Your task to perform on an android device: What is the news today? Image 0: 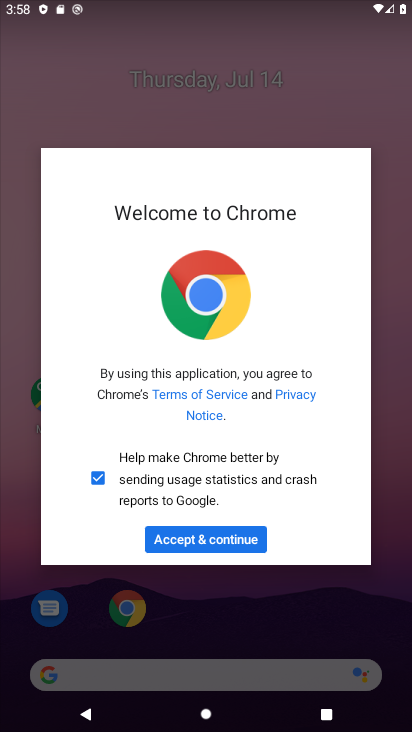
Step 0: press home button
Your task to perform on an android device: What is the news today? Image 1: 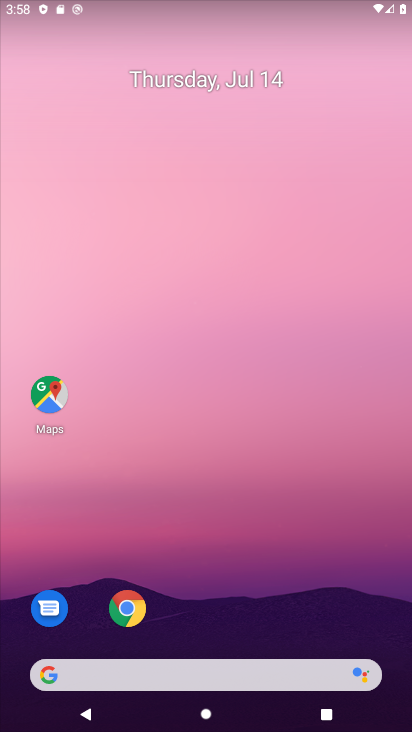
Step 1: drag from (220, 644) to (186, 127)
Your task to perform on an android device: What is the news today? Image 2: 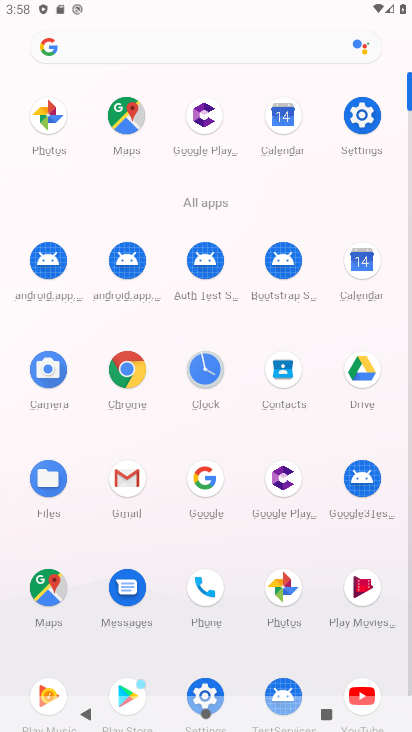
Step 2: click (191, 487)
Your task to perform on an android device: What is the news today? Image 3: 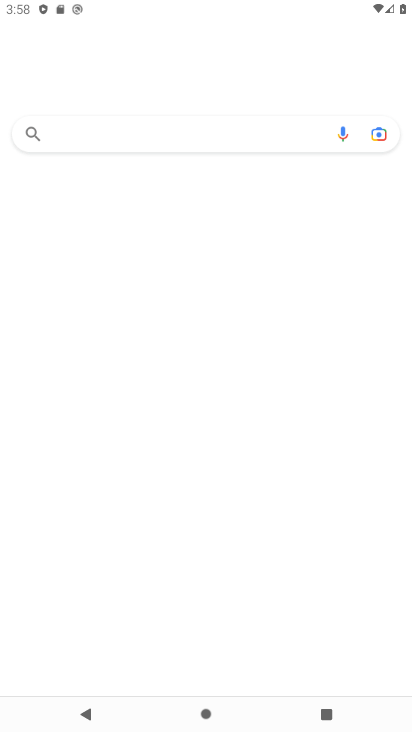
Step 3: click (169, 143)
Your task to perform on an android device: What is the news today? Image 4: 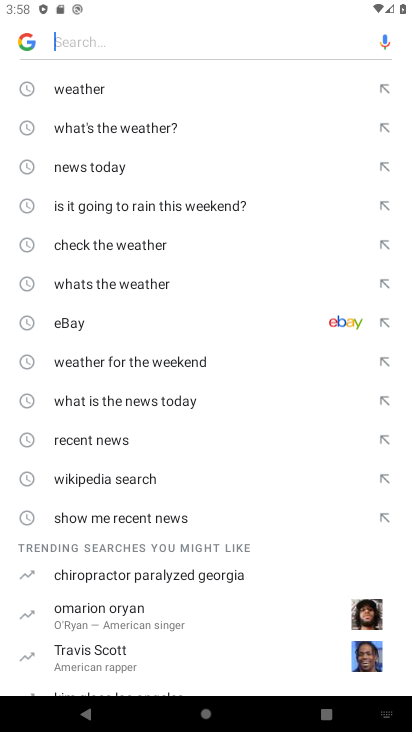
Step 4: click (131, 168)
Your task to perform on an android device: What is the news today? Image 5: 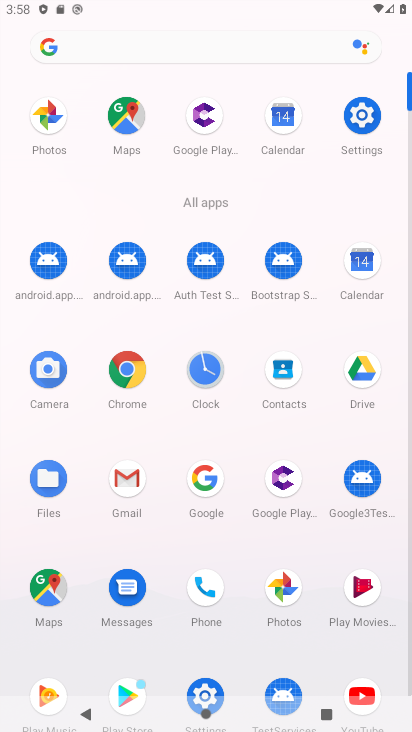
Step 5: click (205, 487)
Your task to perform on an android device: What is the news today? Image 6: 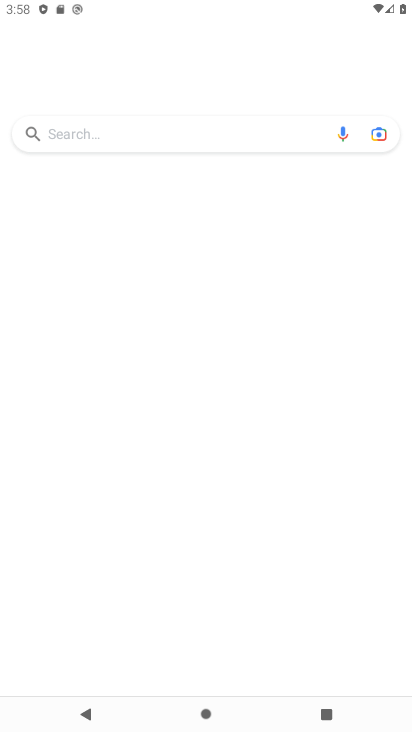
Step 6: click (114, 141)
Your task to perform on an android device: What is the news today? Image 7: 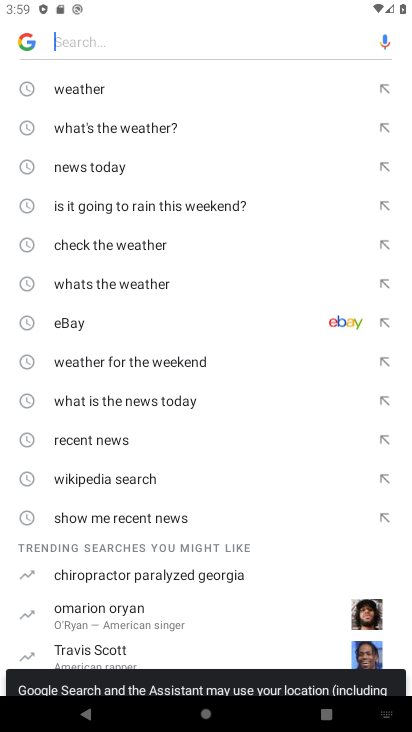
Step 7: click (120, 176)
Your task to perform on an android device: What is the news today? Image 8: 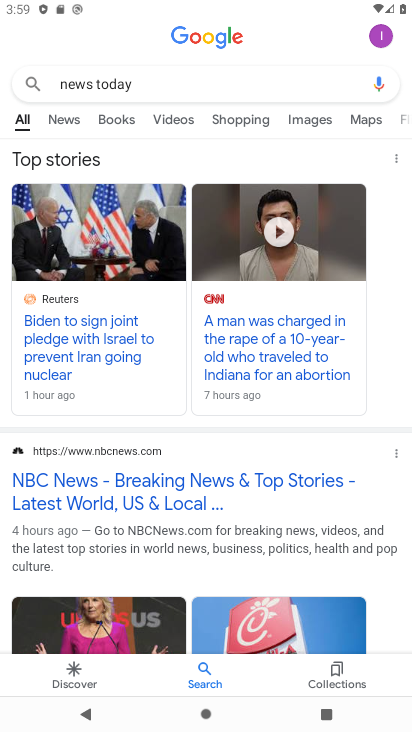
Step 8: click (66, 118)
Your task to perform on an android device: What is the news today? Image 9: 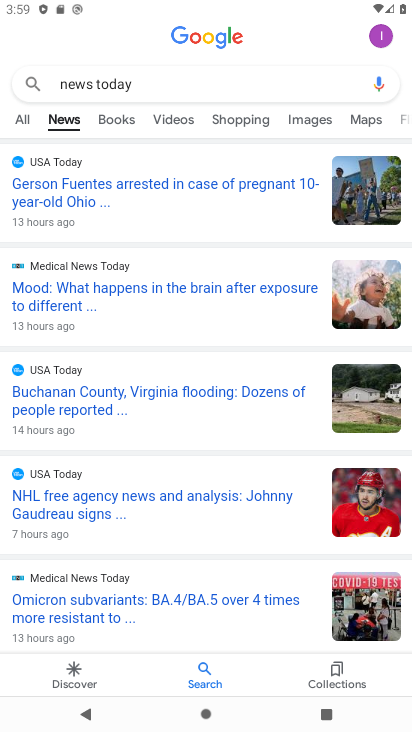
Step 9: task complete